Your task to perform on an android device: Go to notification settings Image 0: 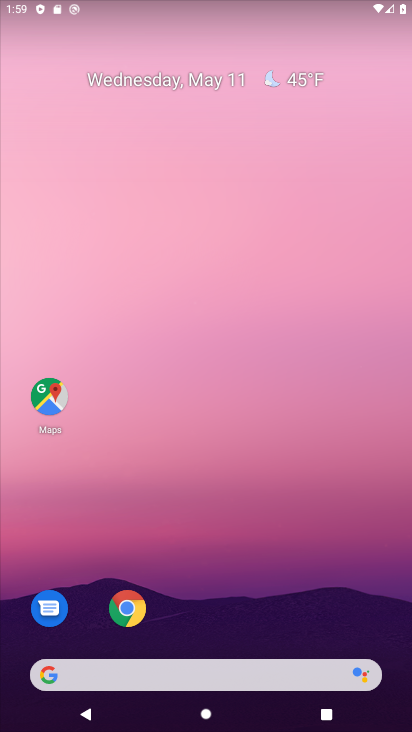
Step 0: drag from (250, 515) to (252, 118)
Your task to perform on an android device: Go to notification settings Image 1: 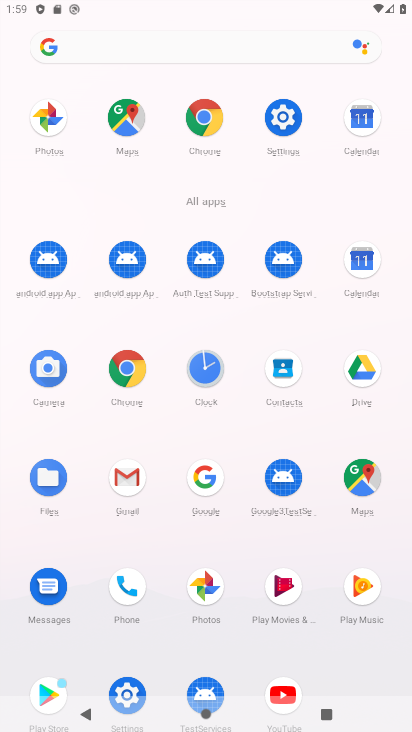
Step 1: click (287, 119)
Your task to perform on an android device: Go to notification settings Image 2: 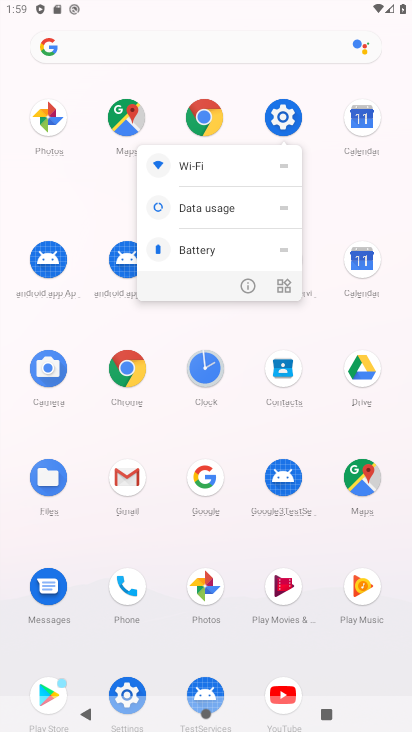
Step 2: click (284, 114)
Your task to perform on an android device: Go to notification settings Image 3: 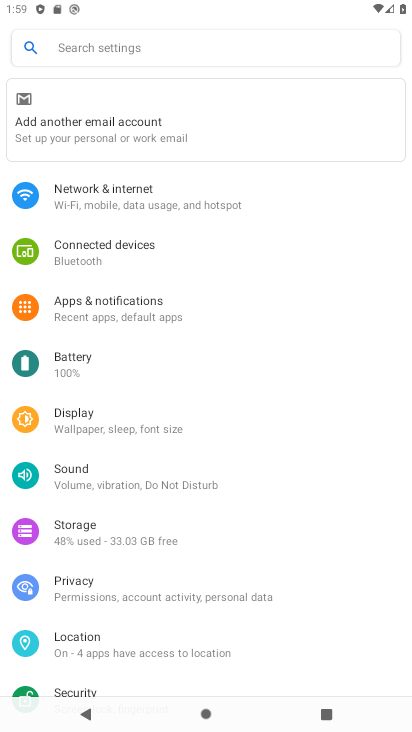
Step 3: click (171, 294)
Your task to perform on an android device: Go to notification settings Image 4: 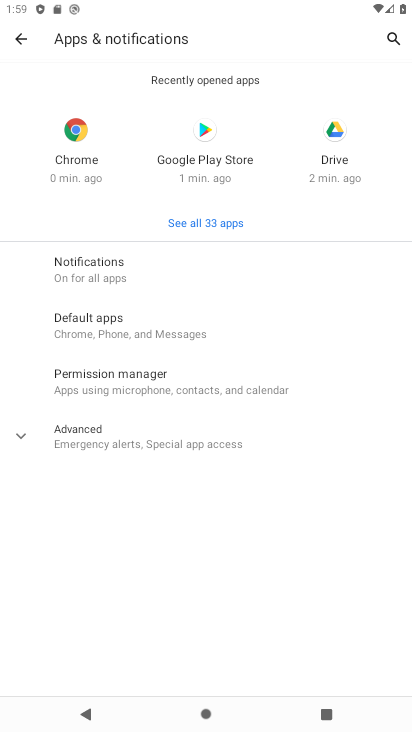
Step 4: click (127, 270)
Your task to perform on an android device: Go to notification settings Image 5: 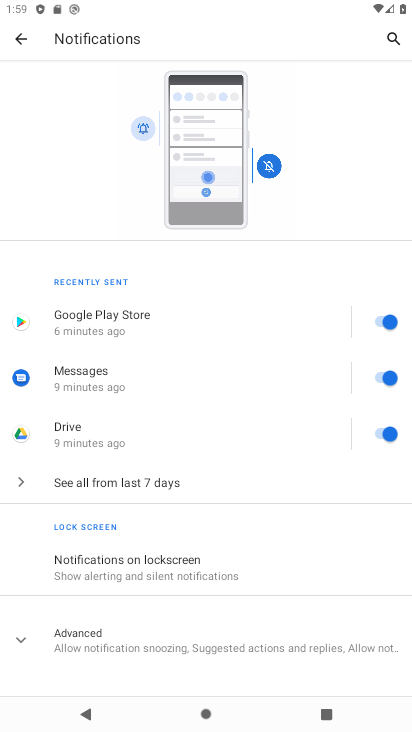
Step 5: task complete